Your task to perform on an android device: Play the last video I watched on Youtube Image 0: 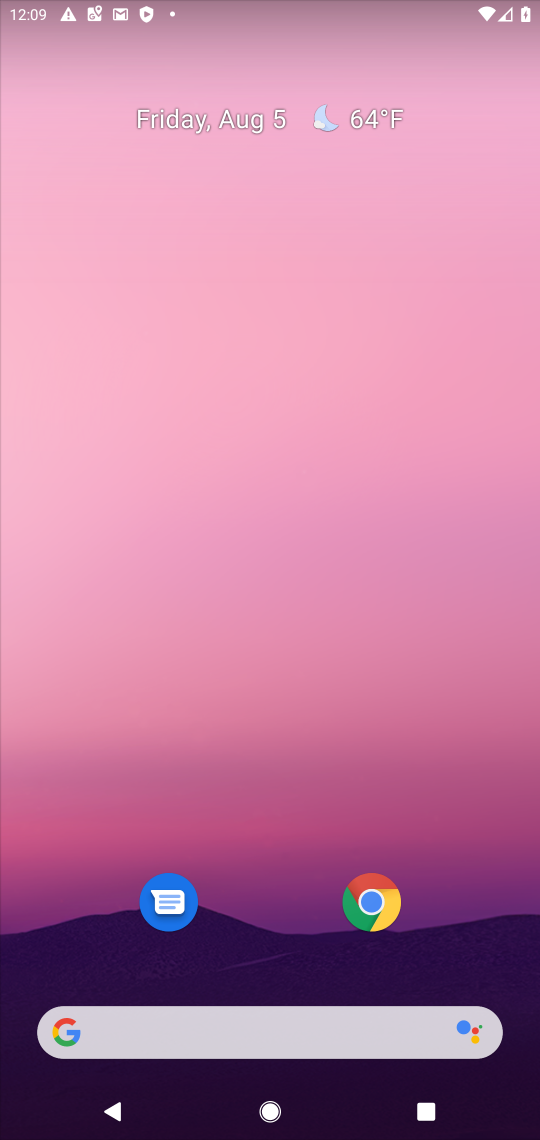
Step 0: press home button
Your task to perform on an android device: Play the last video I watched on Youtube Image 1: 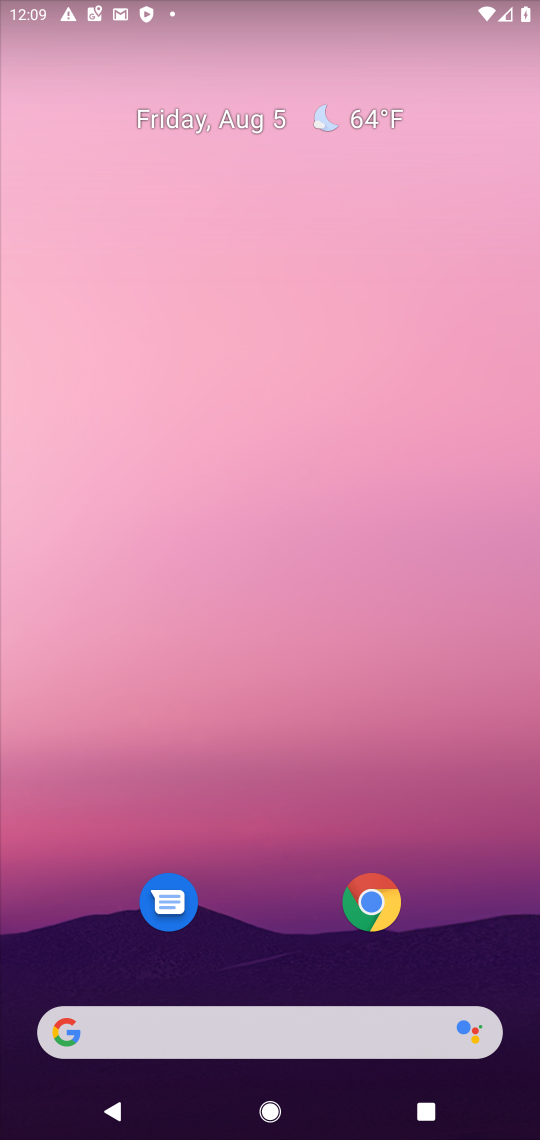
Step 1: drag from (303, 662) to (350, 176)
Your task to perform on an android device: Play the last video I watched on Youtube Image 2: 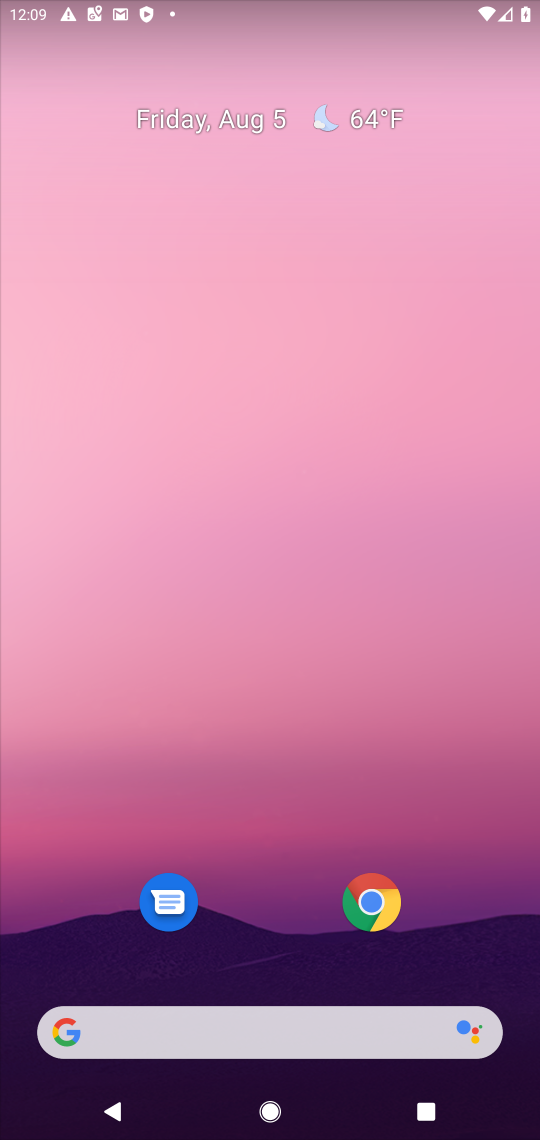
Step 2: drag from (279, 967) to (322, 53)
Your task to perform on an android device: Play the last video I watched on Youtube Image 3: 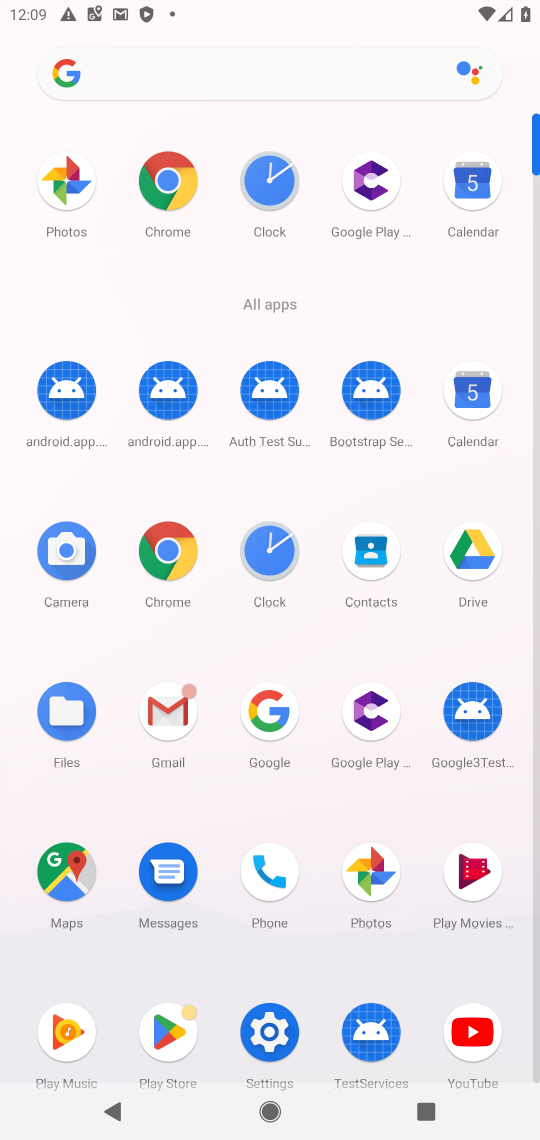
Step 3: click (473, 1018)
Your task to perform on an android device: Play the last video I watched on Youtube Image 4: 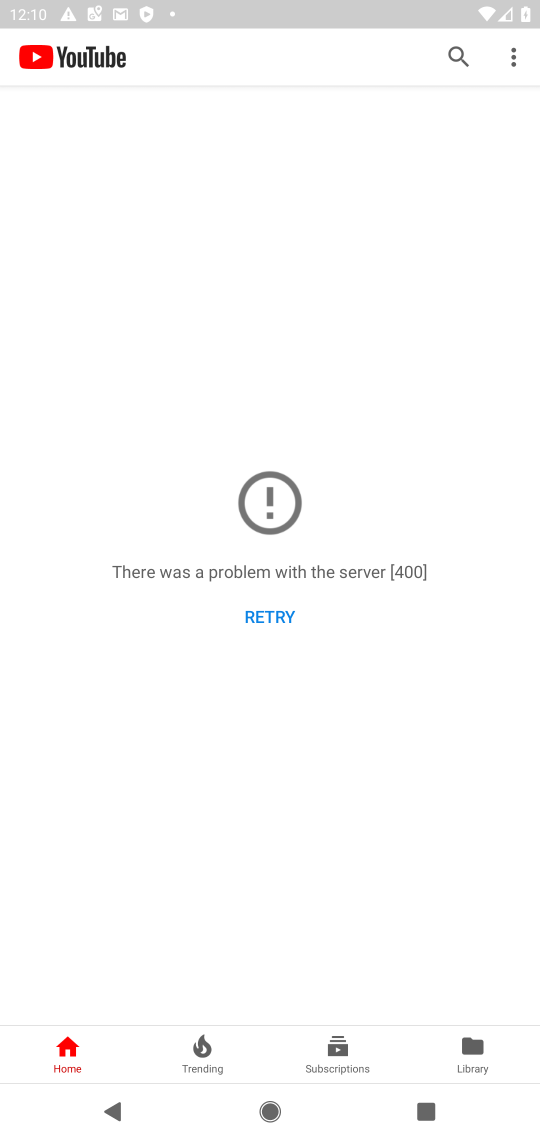
Step 4: click (480, 1051)
Your task to perform on an android device: Play the last video I watched on Youtube Image 5: 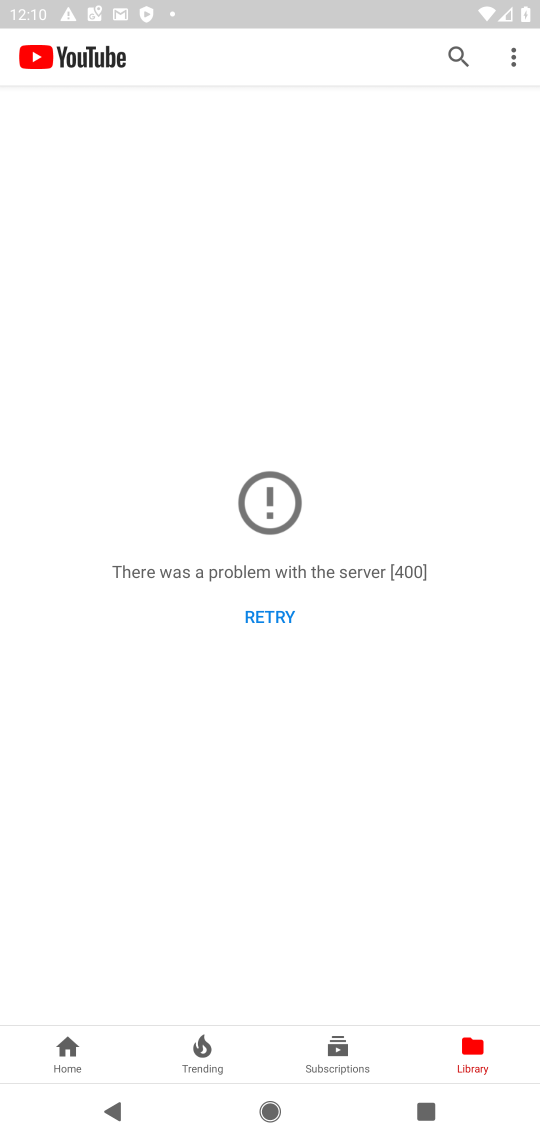
Step 5: click (263, 618)
Your task to perform on an android device: Play the last video I watched on Youtube Image 6: 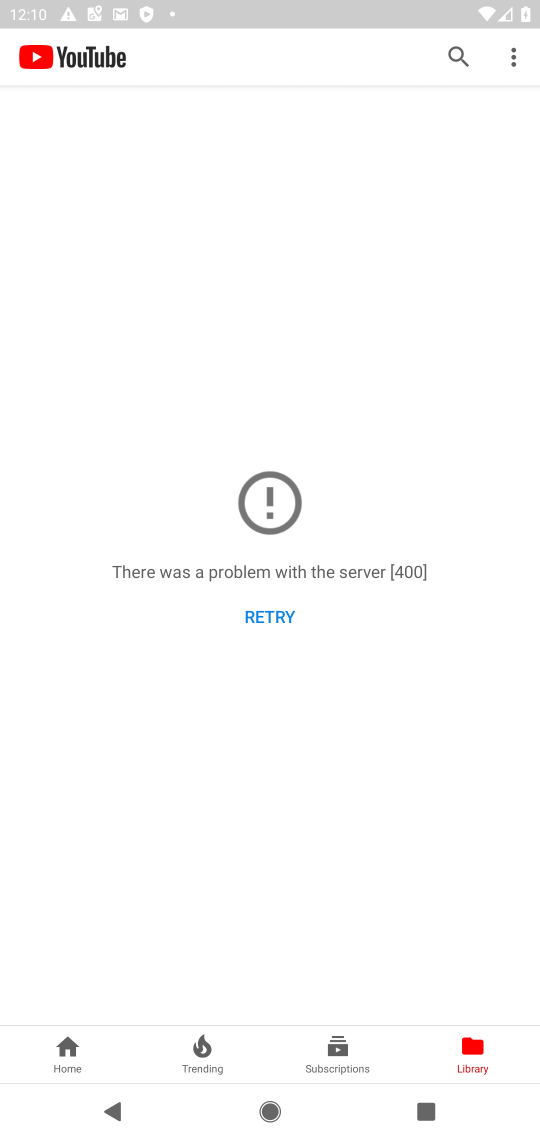
Step 6: task complete